Your task to perform on an android device: toggle javascript in the chrome app Image 0: 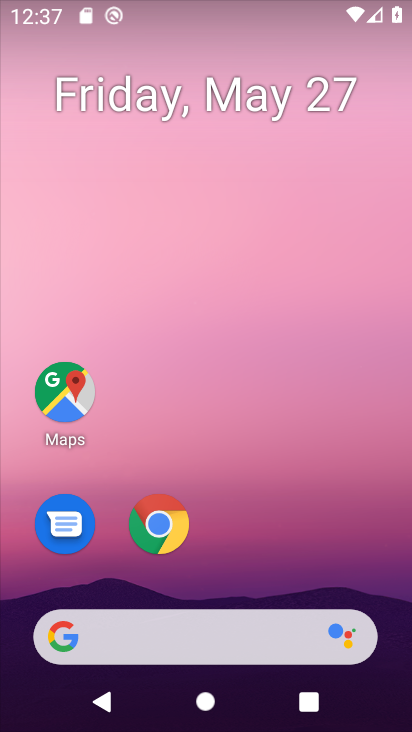
Step 0: click (170, 534)
Your task to perform on an android device: toggle javascript in the chrome app Image 1: 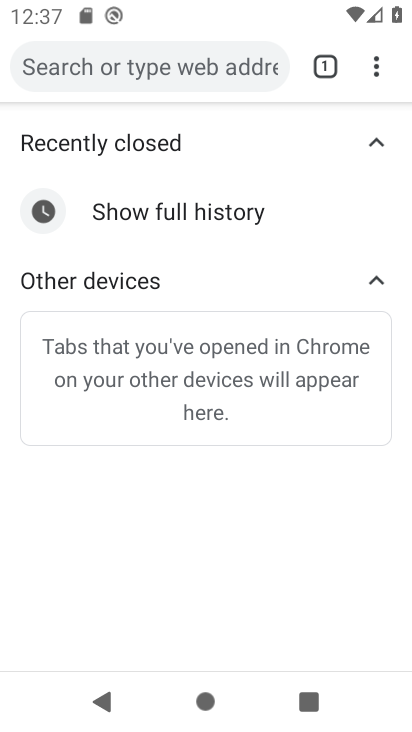
Step 1: click (372, 70)
Your task to perform on an android device: toggle javascript in the chrome app Image 2: 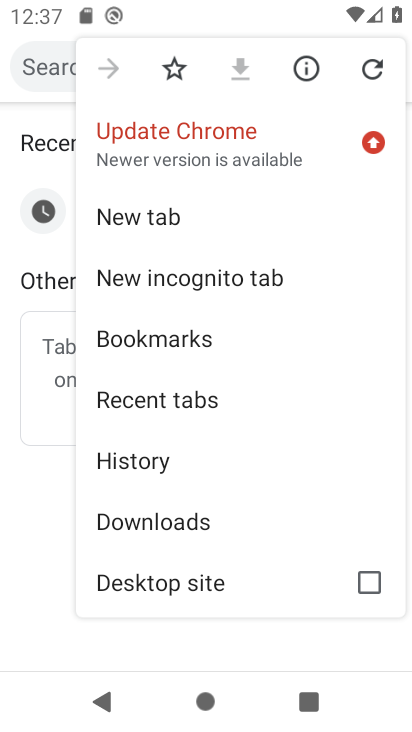
Step 2: drag from (285, 510) to (292, 109)
Your task to perform on an android device: toggle javascript in the chrome app Image 3: 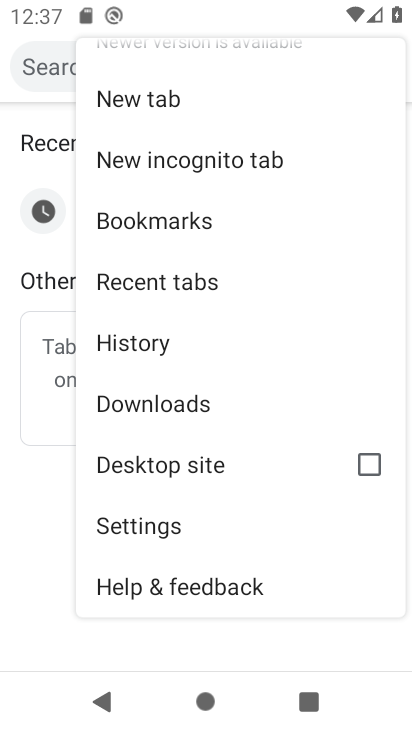
Step 3: click (162, 519)
Your task to perform on an android device: toggle javascript in the chrome app Image 4: 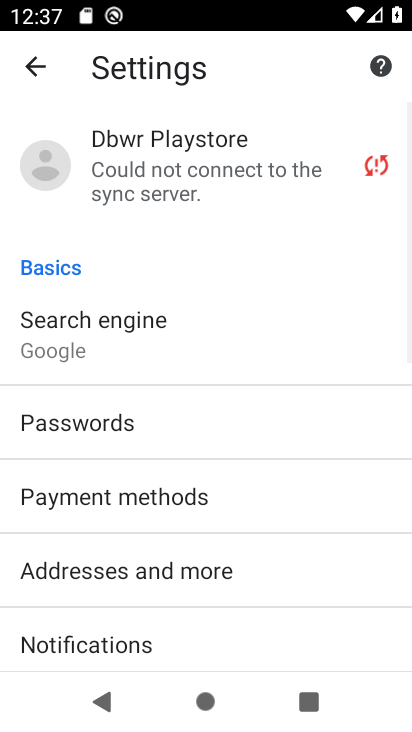
Step 4: drag from (251, 514) to (287, 75)
Your task to perform on an android device: toggle javascript in the chrome app Image 5: 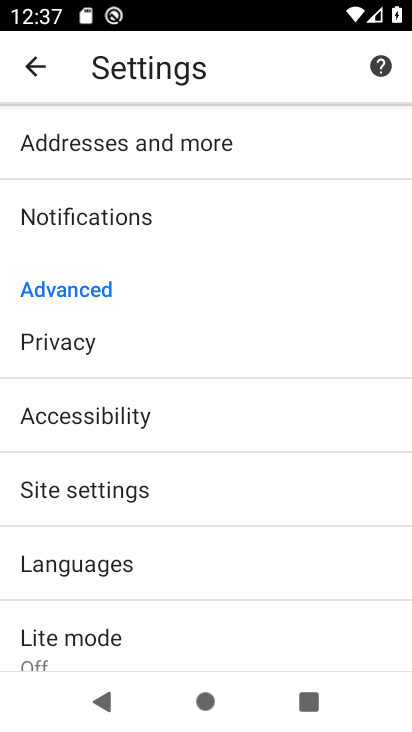
Step 5: click (155, 493)
Your task to perform on an android device: toggle javascript in the chrome app Image 6: 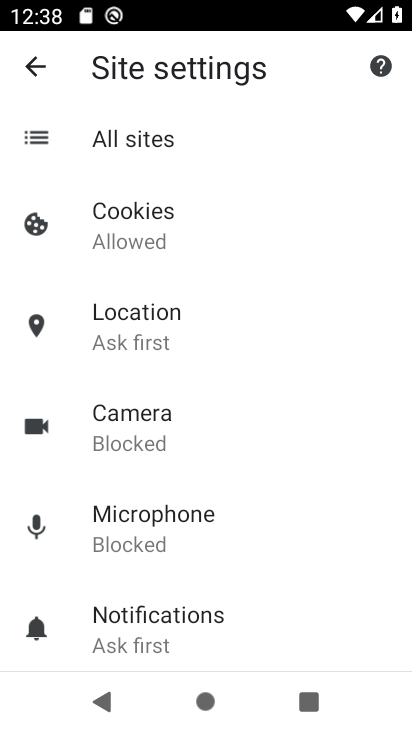
Step 6: drag from (252, 568) to (285, 159)
Your task to perform on an android device: toggle javascript in the chrome app Image 7: 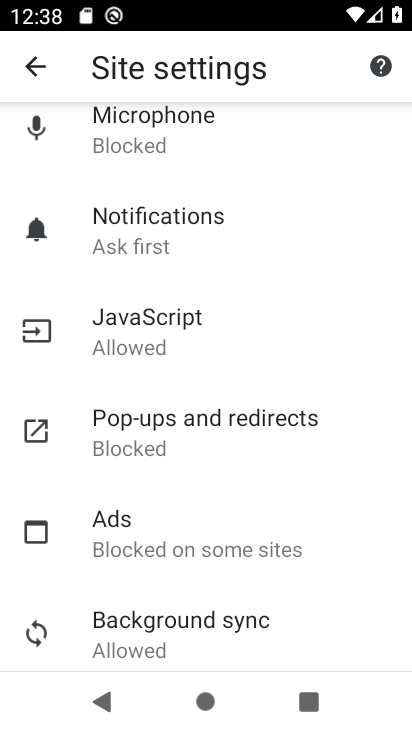
Step 7: click (218, 334)
Your task to perform on an android device: toggle javascript in the chrome app Image 8: 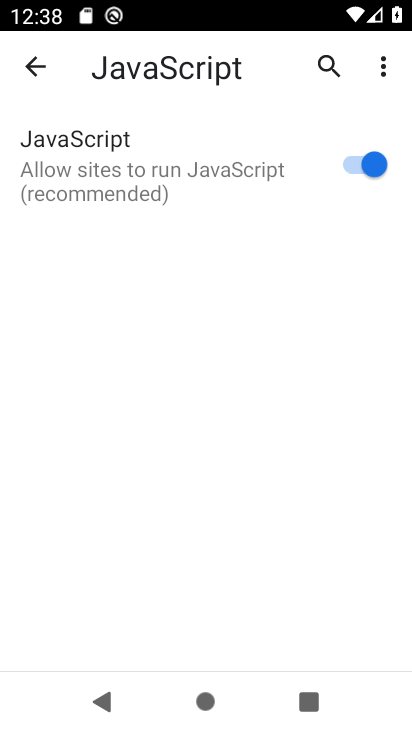
Step 8: click (349, 156)
Your task to perform on an android device: toggle javascript in the chrome app Image 9: 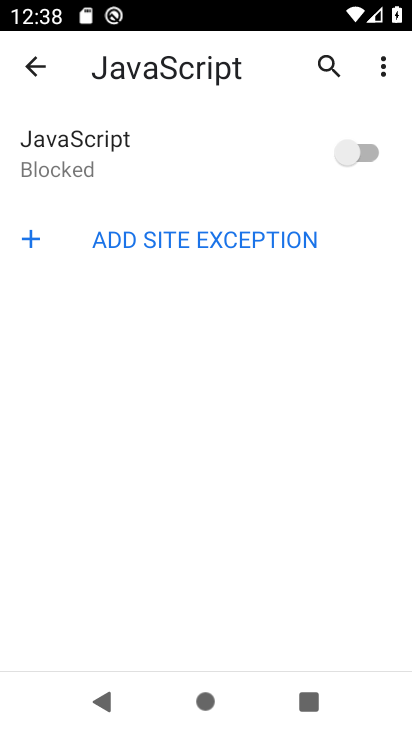
Step 9: task complete